Your task to perform on an android device: change timer sound Image 0: 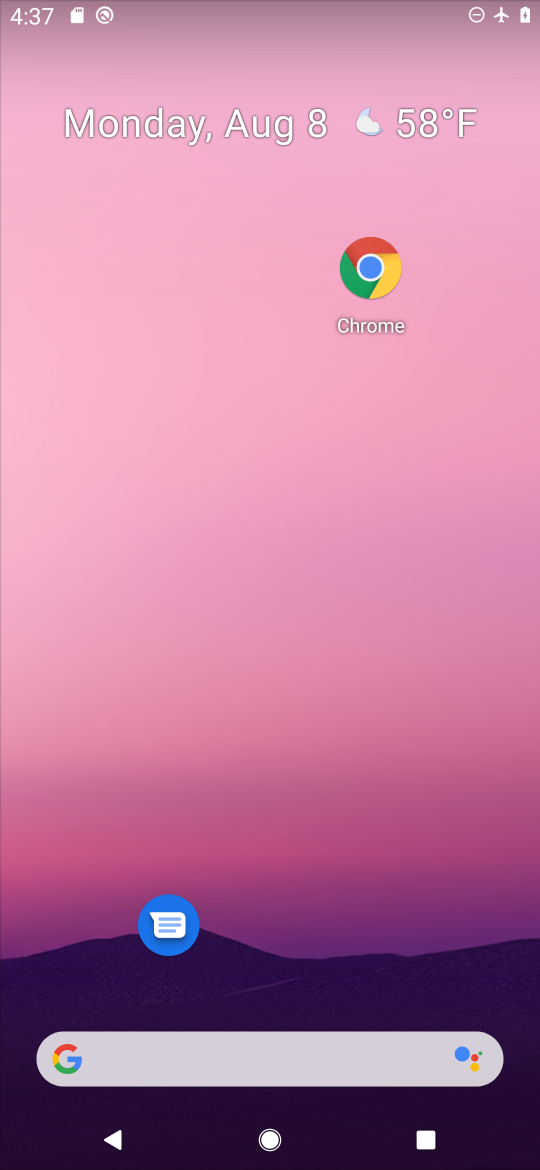
Step 0: drag from (296, 1026) to (275, 155)
Your task to perform on an android device: change timer sound Image 1: 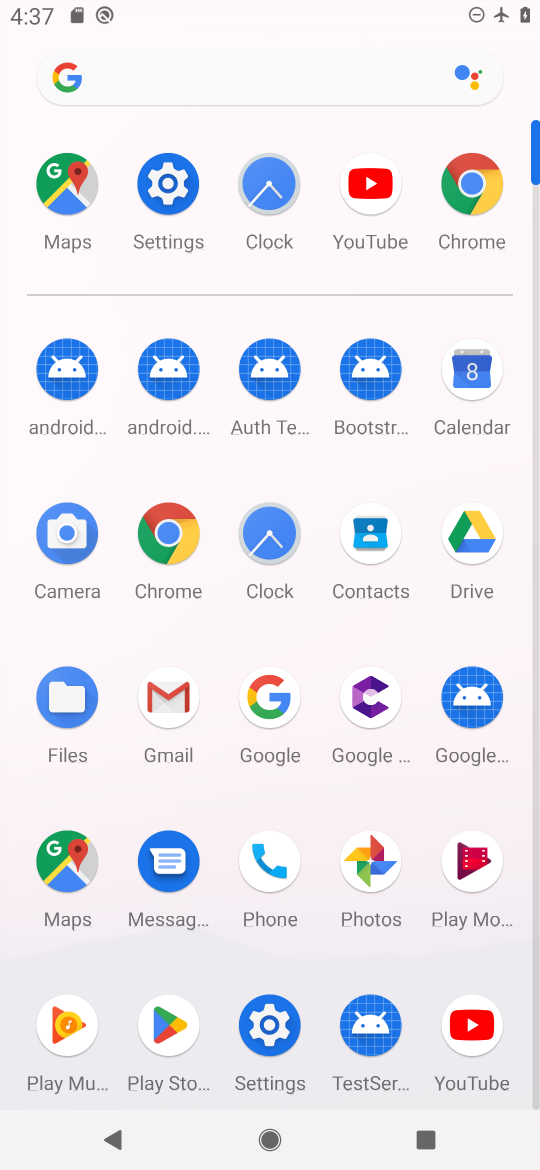
Step 1: click (269, 539)
Your task to perform on an android device: change timer sound Image 2: 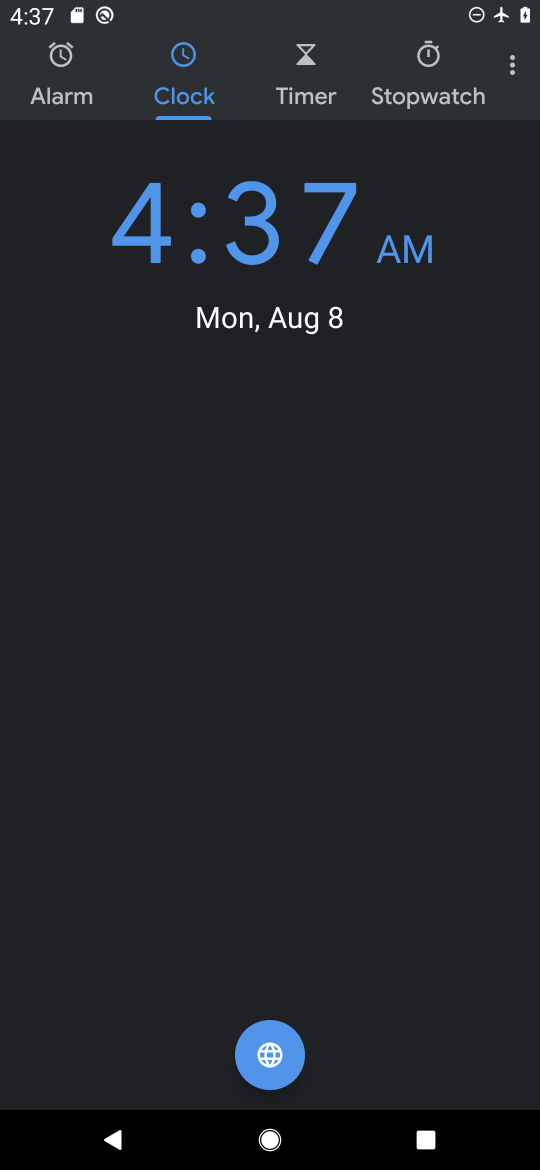
Step 2: click (515, 75)
Your task to perform on an android device: change timer sound Image 3: 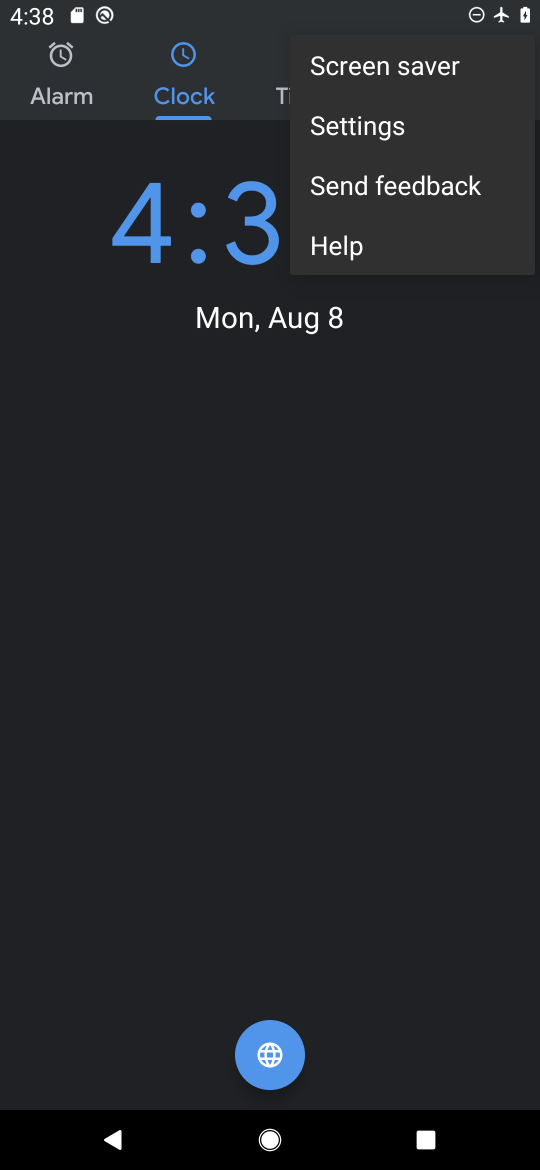
Step 3: click (347, 125)
Your task to perform on an android device: change timer sound Image 4: 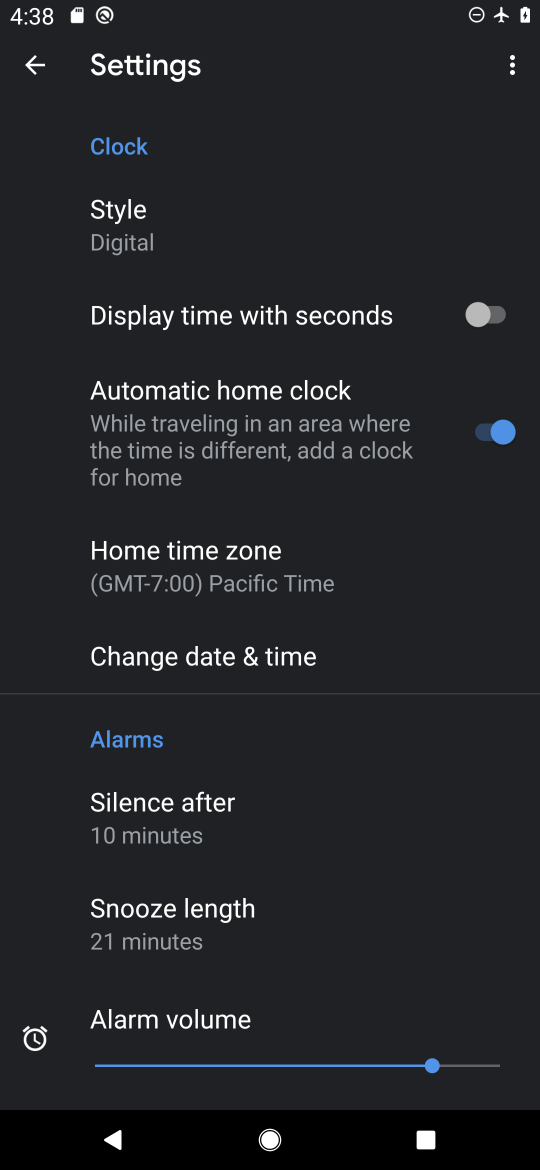
Step 4: drag from (270, 994) to (286, 408)
Your task to perform on an android device: change timer sound Image 5: 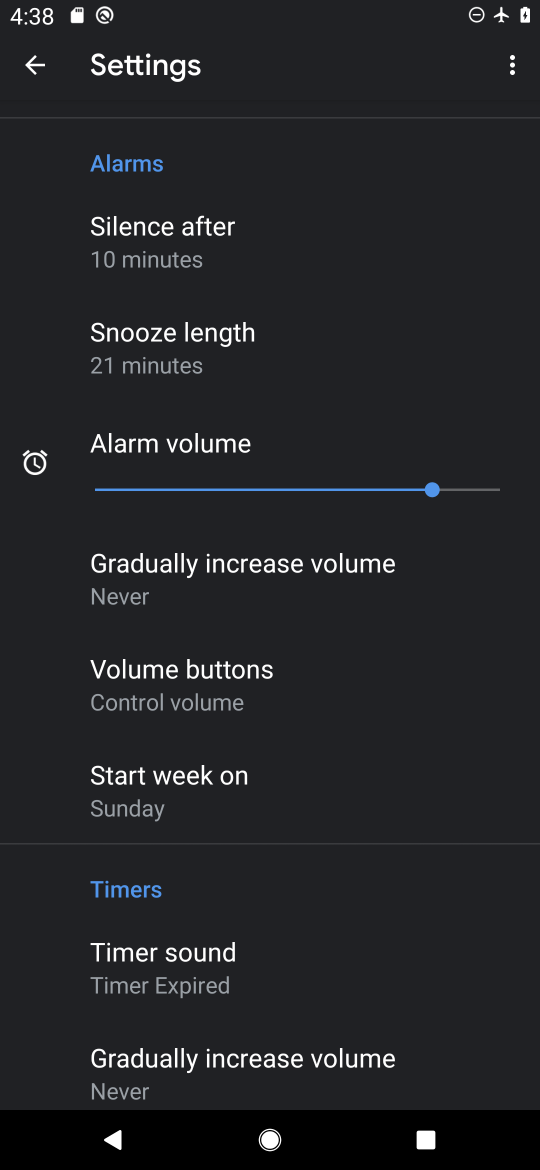
Step 5: click (210, 972)
Your task to perform on an android device: change timer sound Image 6: 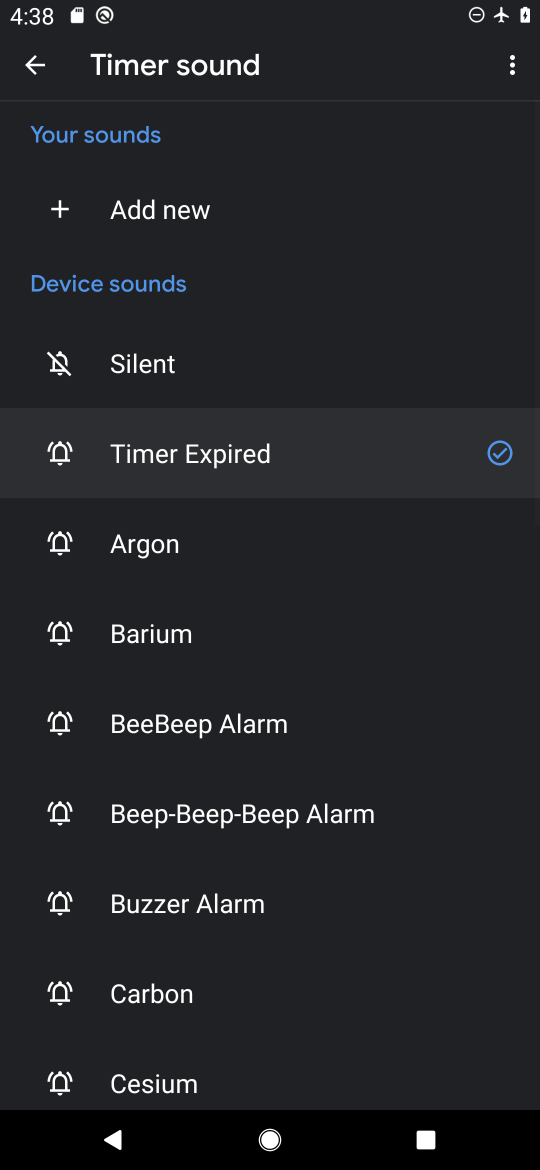
Step 6: click (187, 906)
Your task to perform on an android device: change timer sound Image 7: 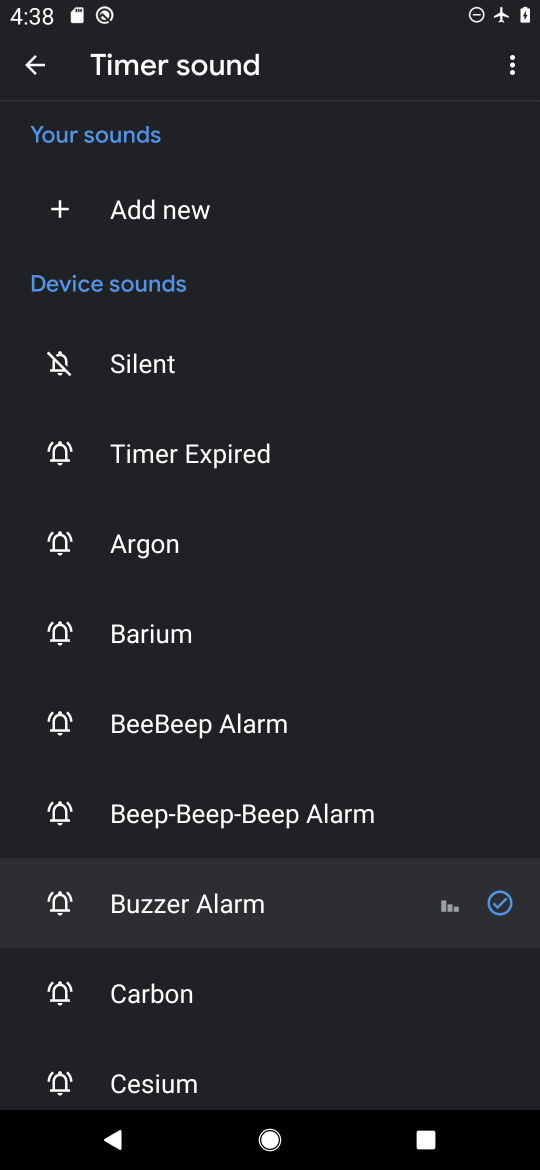
Step 7: task complete